Your task to perform on an android device: Open display settings Image 0: 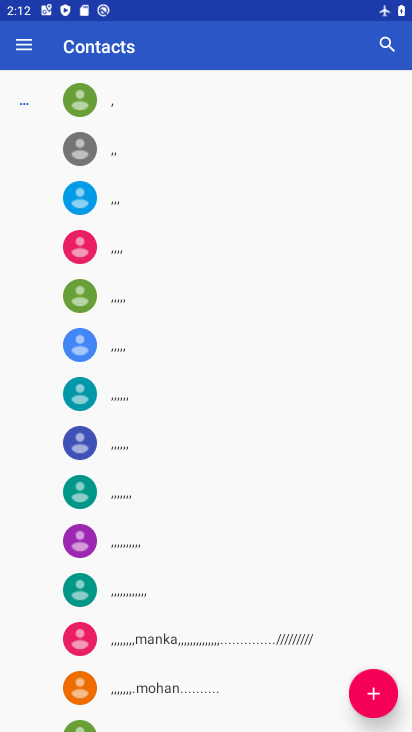
Step 0: press home button
Your task to perform on an android device: Open display settings Image 1: 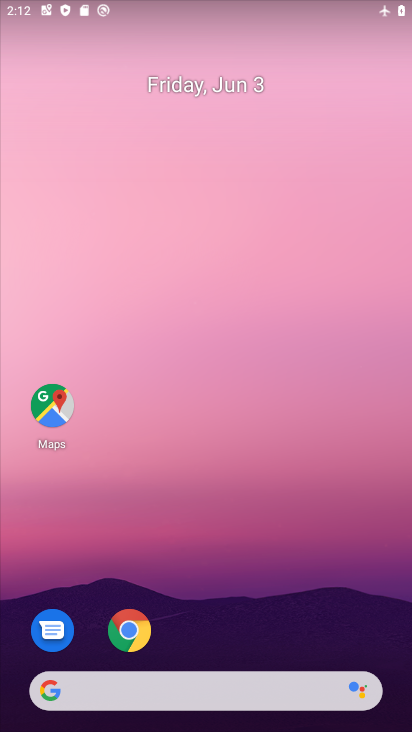
Step 1: drag from (214, 729) to (214, 154)
Your task to perform on an android device: Open display settings Image 2: 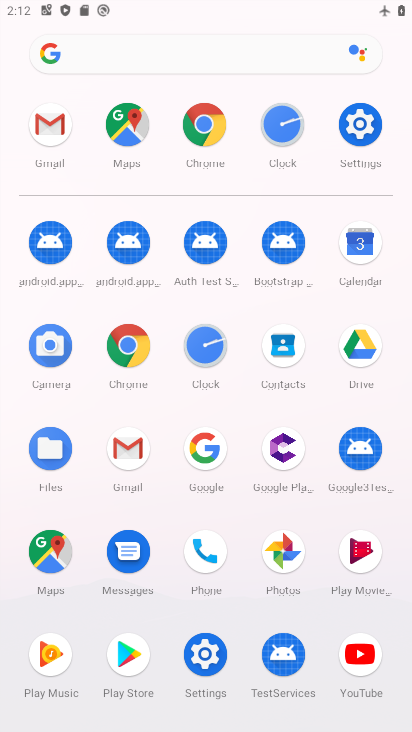
Step 2: click (359, 118)
Your task to perform on an android device: Open display settings Image 3: 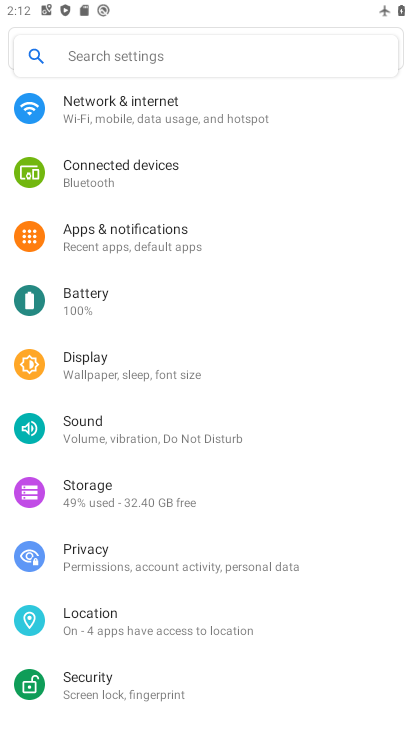
Step 3: click (79, 365)
Your task to perform on an android device: Open display settings Image 4: 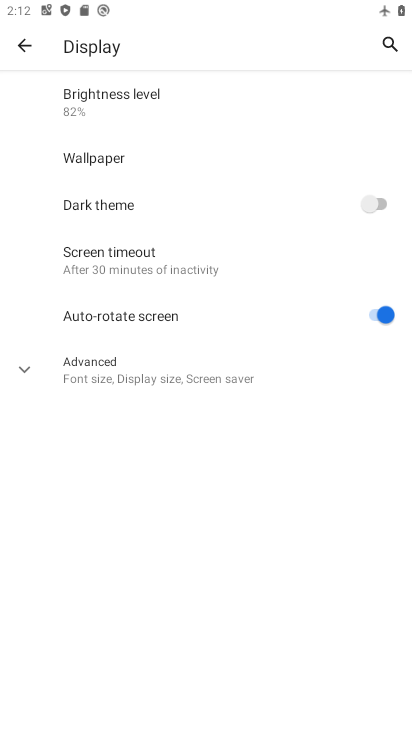
Step 4: task complete